Your task to perform on an android device: Search for pizza restaurants on Maps Image 0: 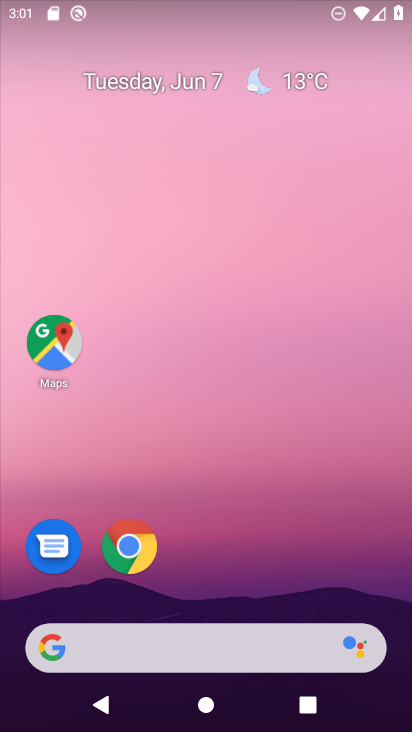
Step 0: drag from (281, 561) to (238, 16)
Your task to perform on an android device: Search for pizza restaurants on Maps Image 1: 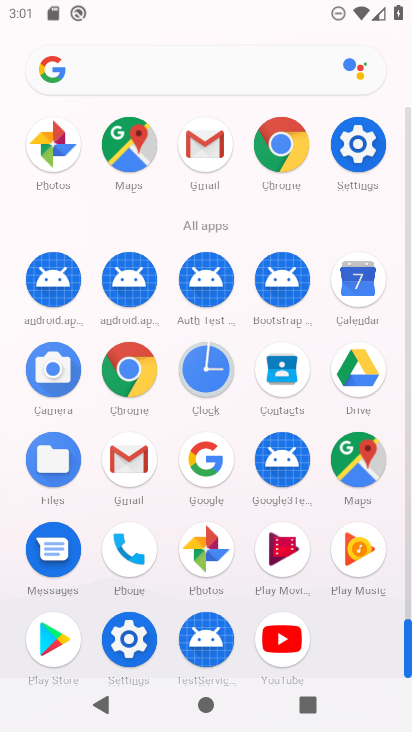
Step 1: drag from (10, 596) to (7, 258)
Your task to perform on an android device: Search for pizza restaurants on Maps Image 2: 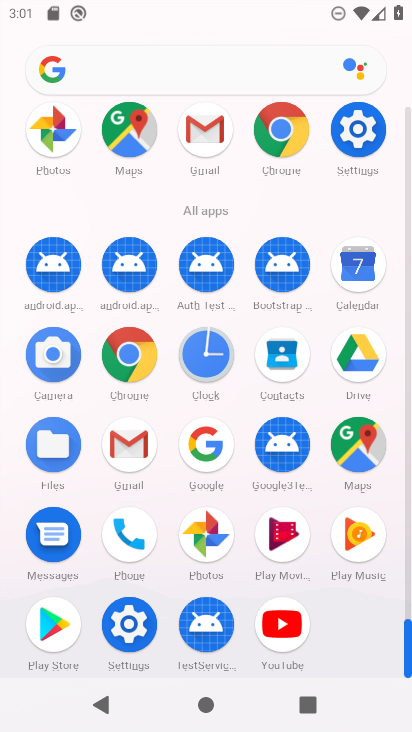
Step 2: click (355, 435)
Your task to perform on an android device: Search for pizza restaurants on Maps Image 3: 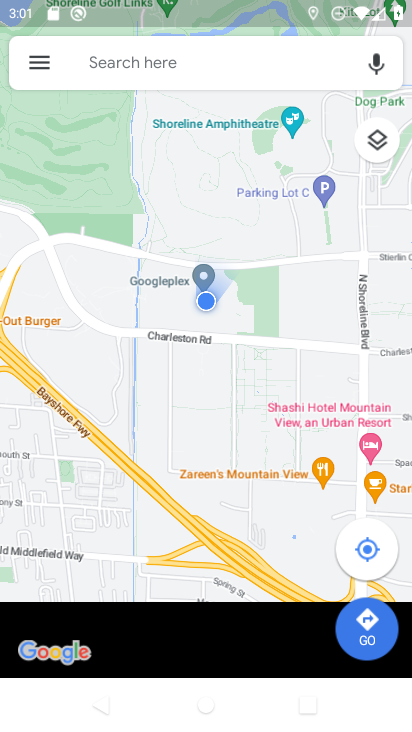
Step 3: click (196, 56)
Your task to perform on an android device: Search for pizza restaurants on Maps Image 4: 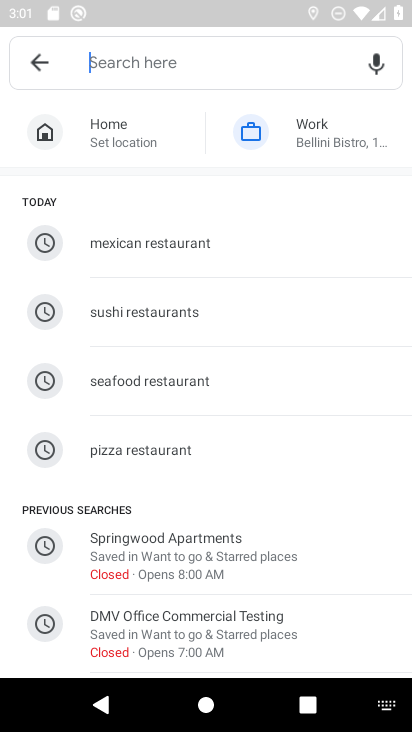
Step 4: click (160, 451)
Your task to perform on an android device: Search for pizza restaurants on Maps Image 5: 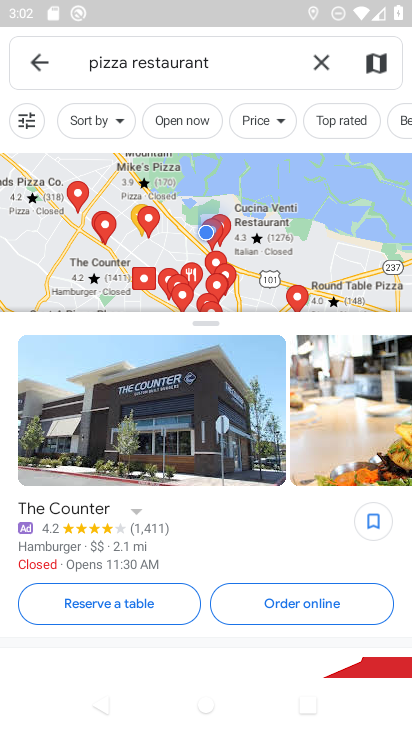
Step 5: task complete